Your task to perform on an android device: View the shopping cart on walmart.com. Add asus zenbook to the cart on walmart.com, then select checkout. Image 0: 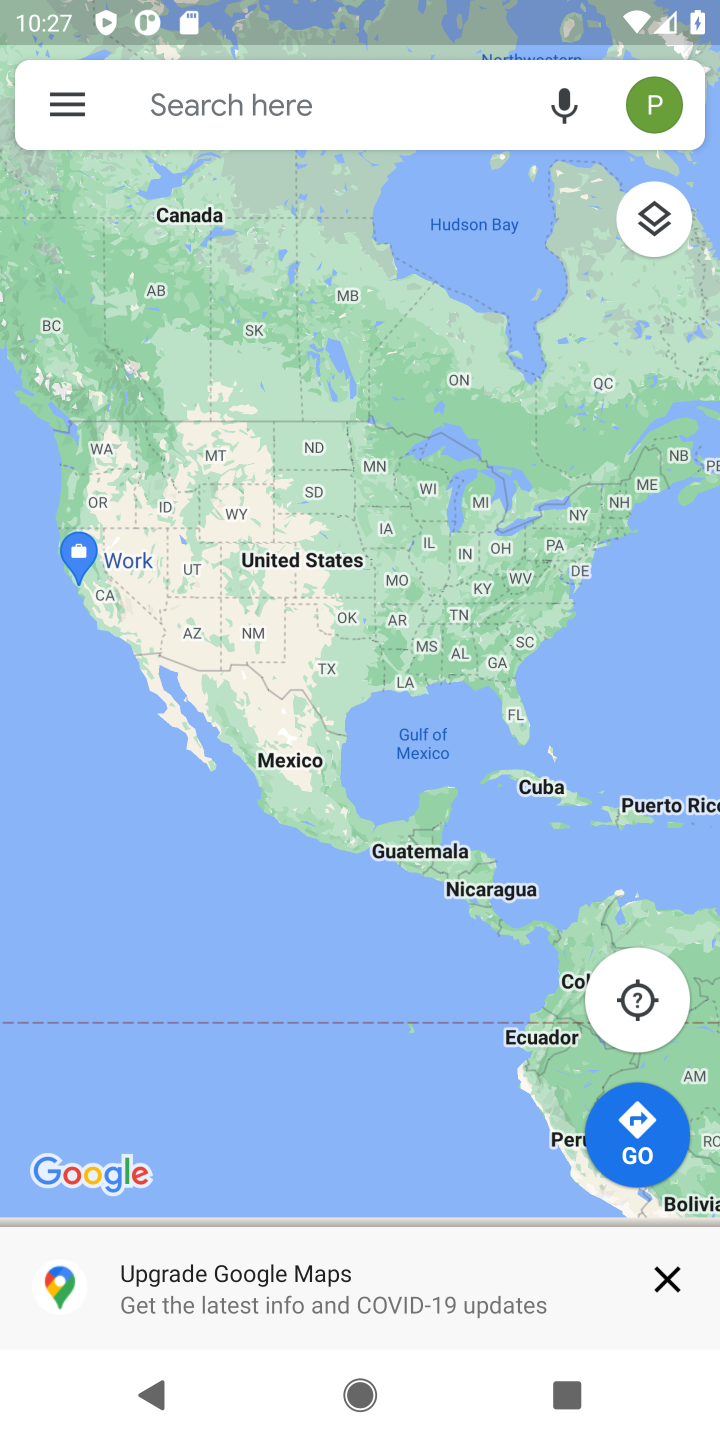
Step 0: press home button
Your task to perform on an android device: View the shopping cart on walmart.com. Add asus zenbook to the cart on walmart.com, then select checkout. Image 1: 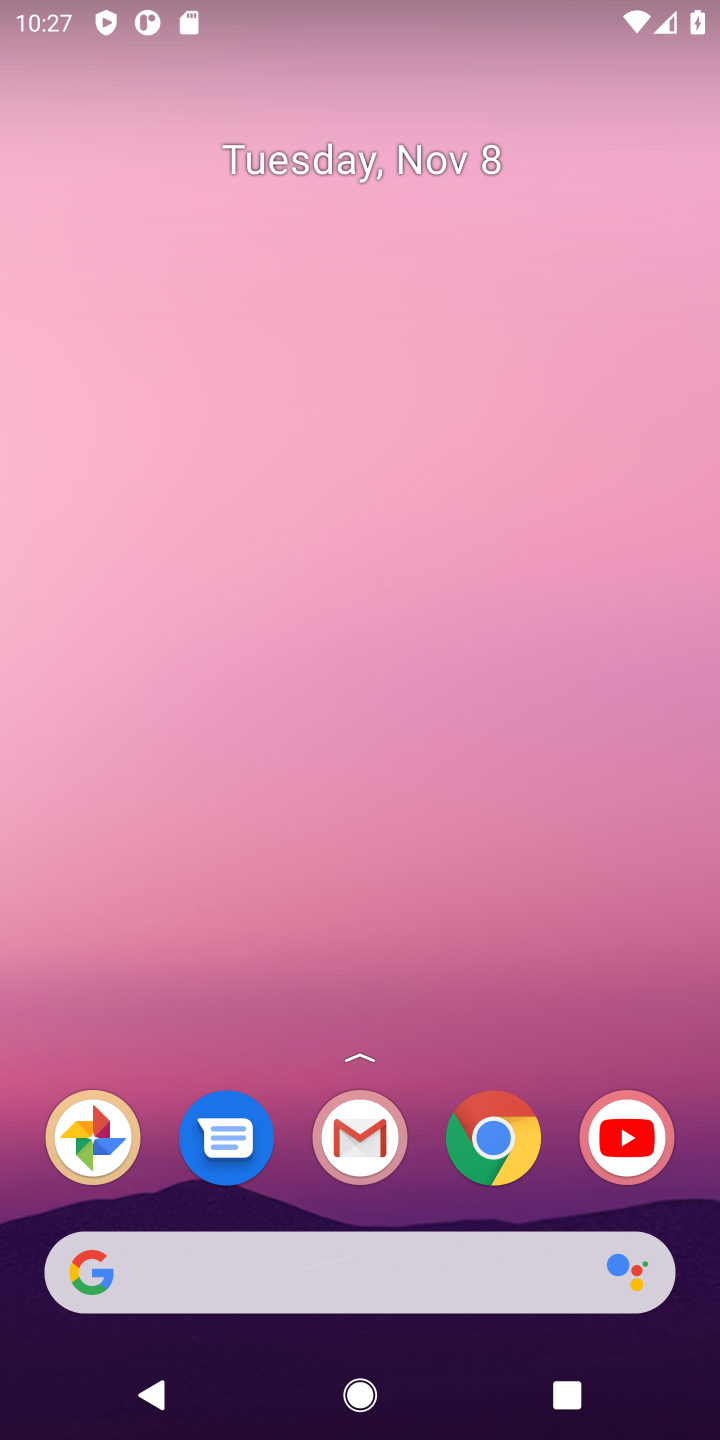
Step 1: click (473, 1122)
Your task to perform on an android device: View the shopping cart on walmart.com. Add asus zenbook to the cart on walmart.com, then select checkout. Image 2: 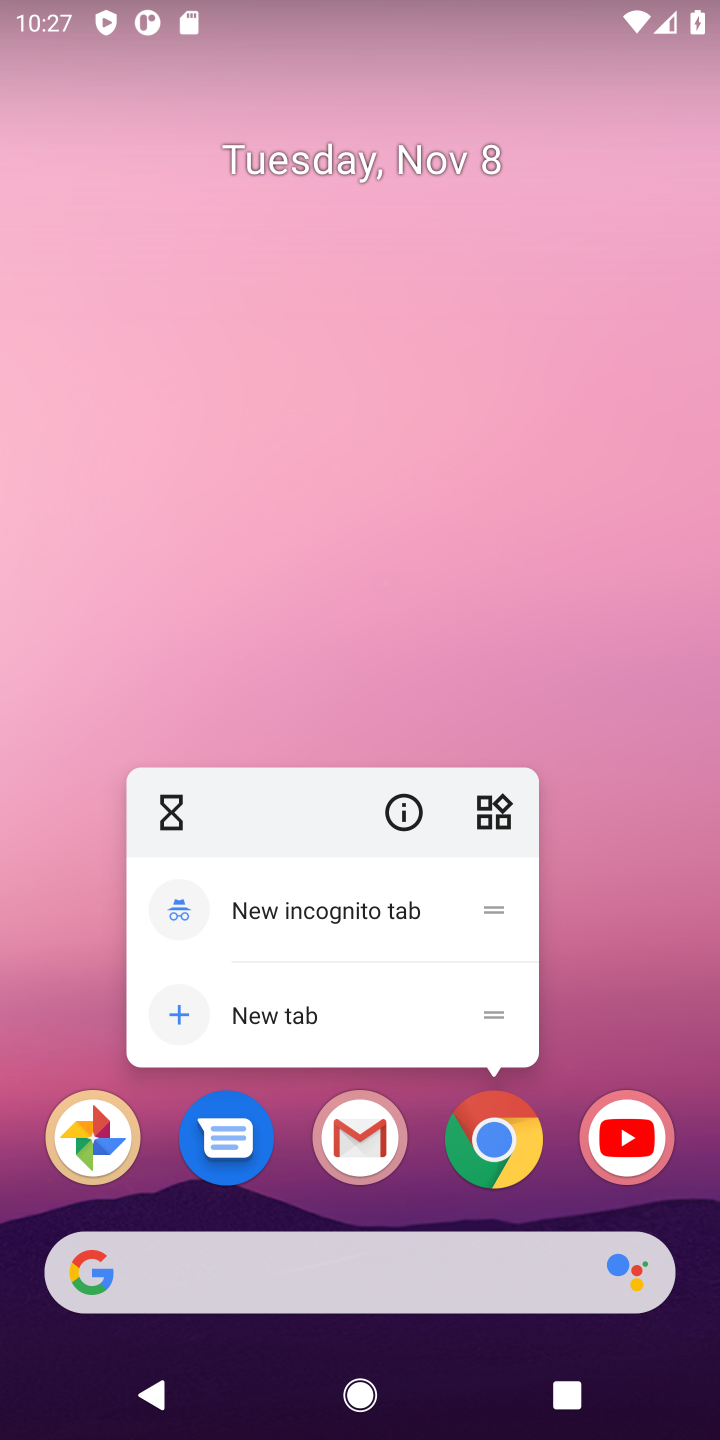
Step 2: click (474, 1142)
Your task to perform on an android device: View the shopping cart on walmart.com. Add asus zenbook to the cart on walmart.com, then select checkout. Image 3: 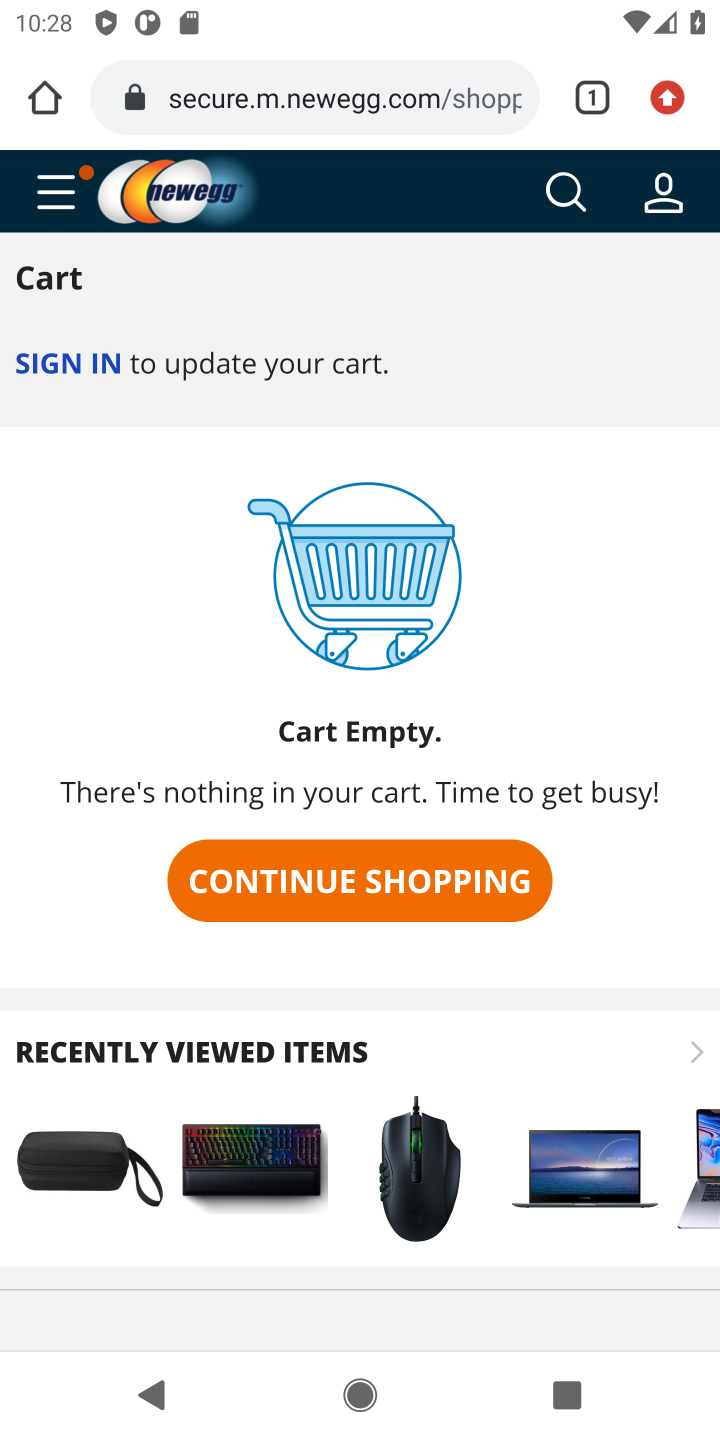
Step 3: click (351, 95)
Your task to perform on an android device: View the shopping cart on walmart.com. Add asus zenbook to the cart on walmart.com, then select checkout. Image 4: 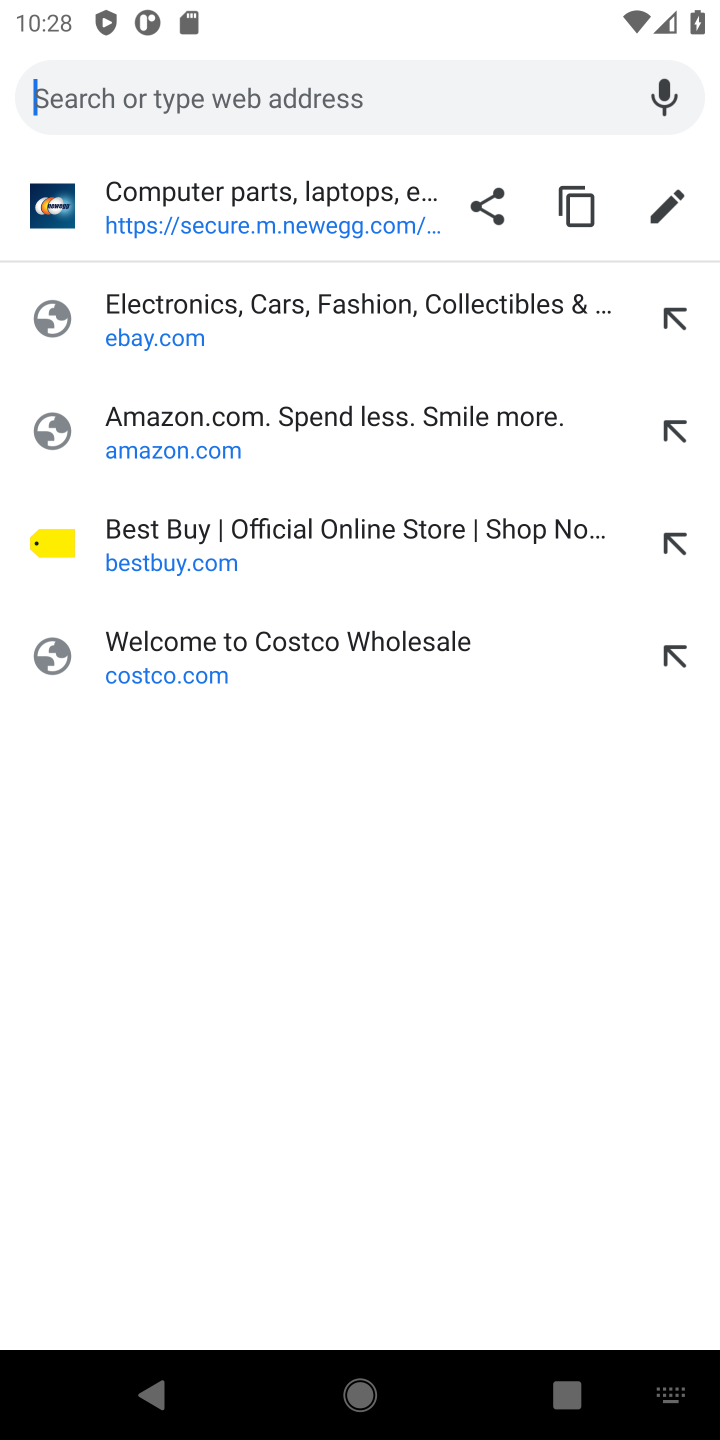
Step 4: type " walmart.com"
Your task to perform on an android device: View the shopping cart on walmart.com. Add asus zenbook to the cart on walmart.com, then select checkout. Image 5: 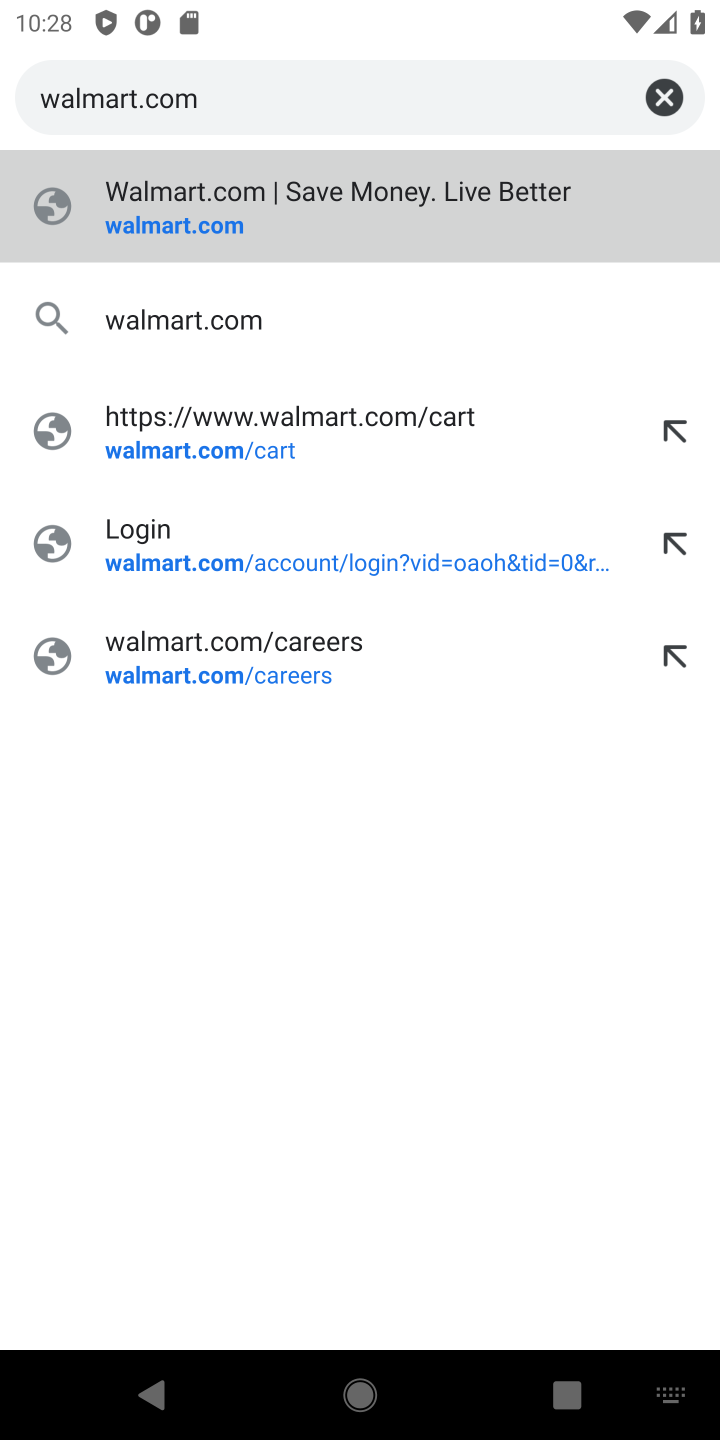
Step 5: press enter
Your task to perform on an android device: View the shopping cart on walmart.com. Add asus zenbook to the cart on walmart.com, then select checkout. Image 6: 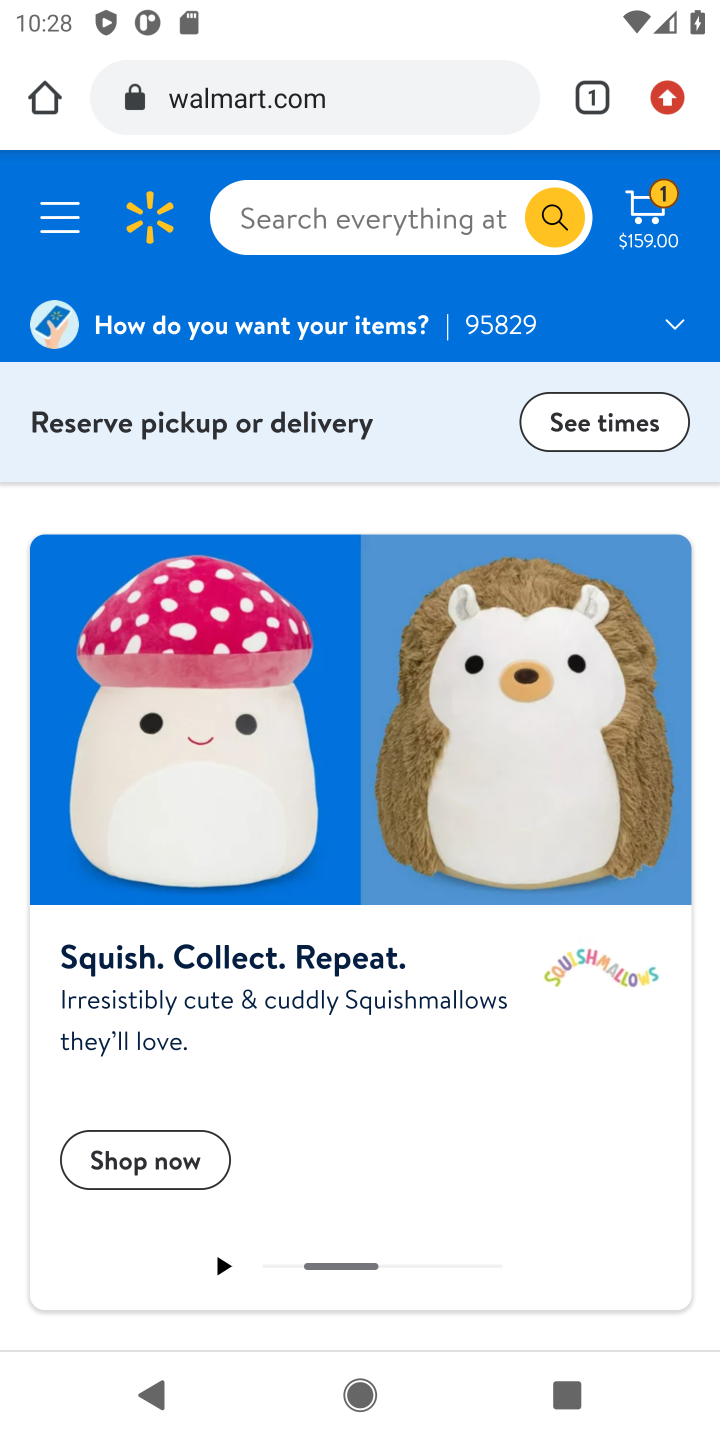
Step 6: click (438, 212)
Your task to perform on an android device: View the shopping cart on walmart.com. Add asus zenbook to the cart on walmart.com, then select checkout. Image 7: 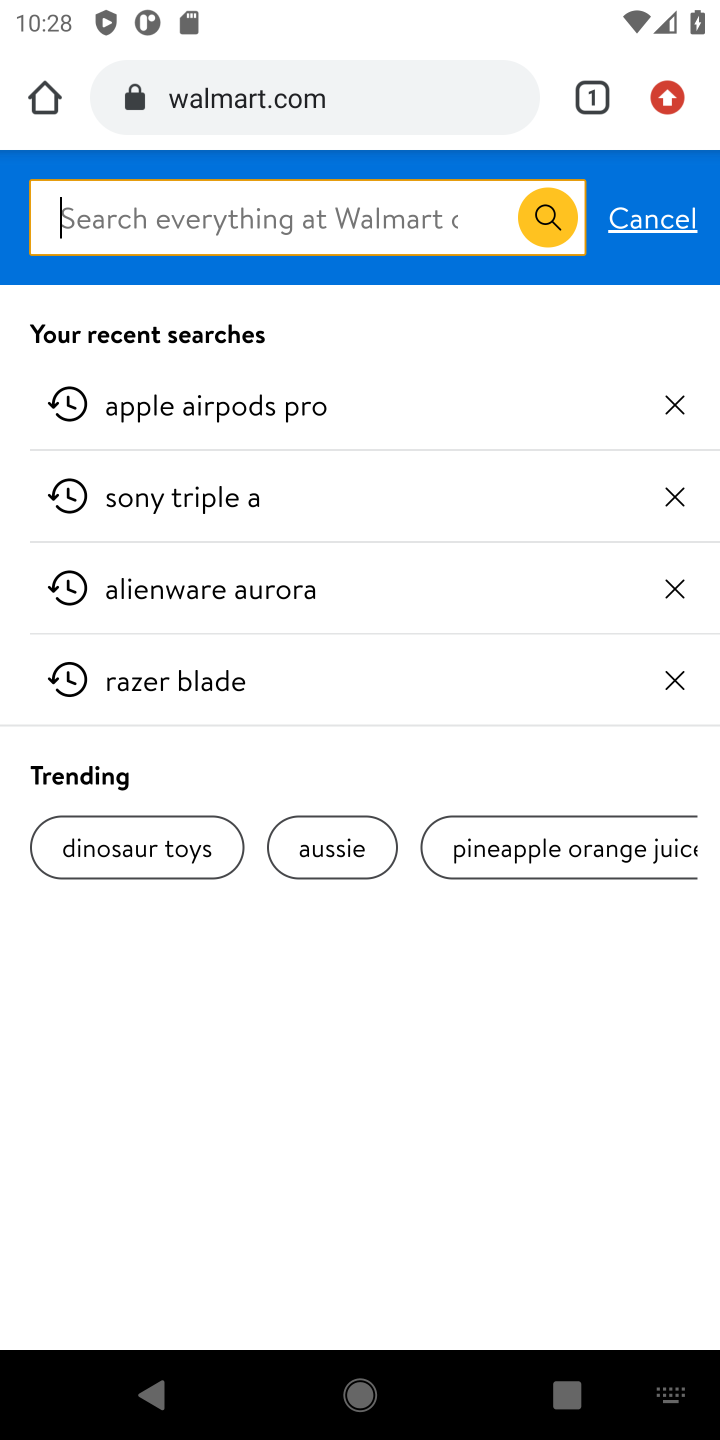
Step 7: type "asus zenbook "
Your task to perform on an android device: View the shopping cart on walmart.com. Add asus zenbook to the cart on walmart.com, then select checkout. Image 8: 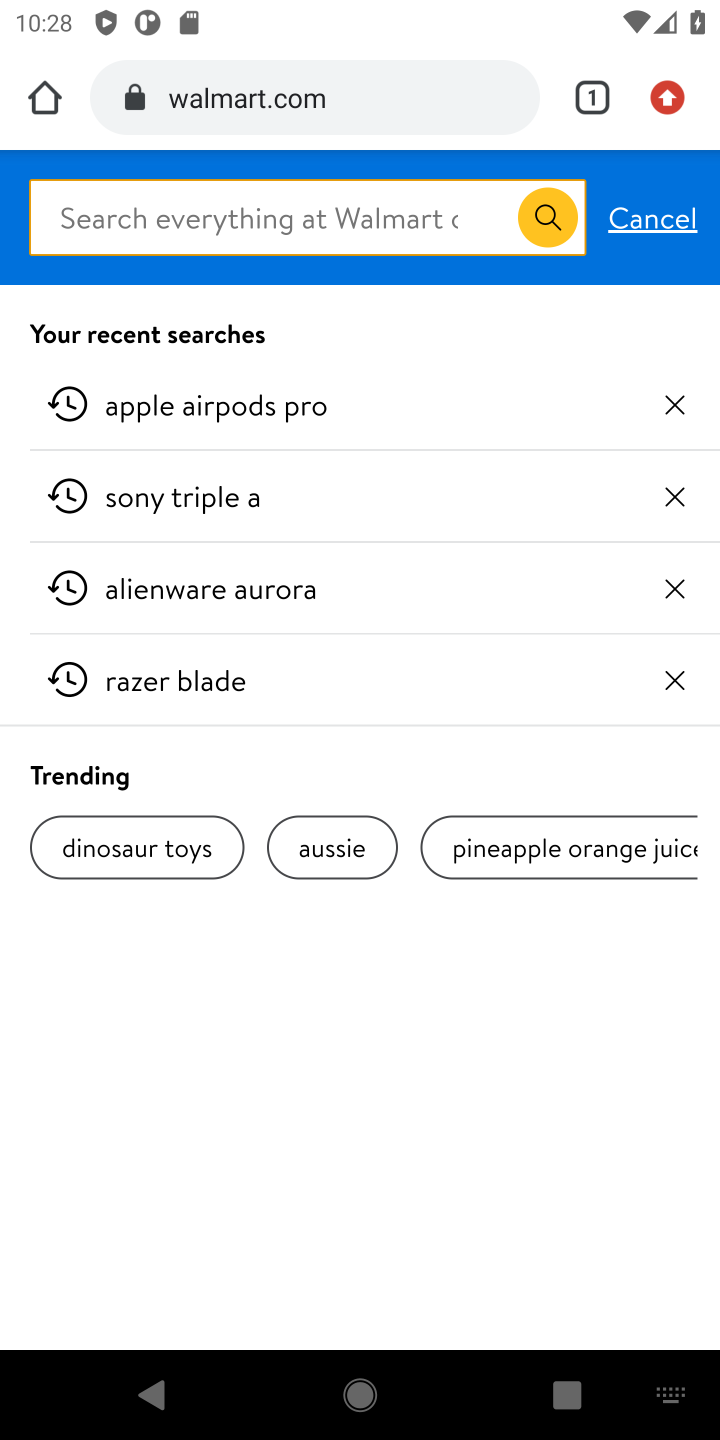
Step 8: press enter
Your task to perform on an android device: View the shopping cart on walmart.com. Add asus zenbook to the cart on walmart.com, then select checkout. Image 9: 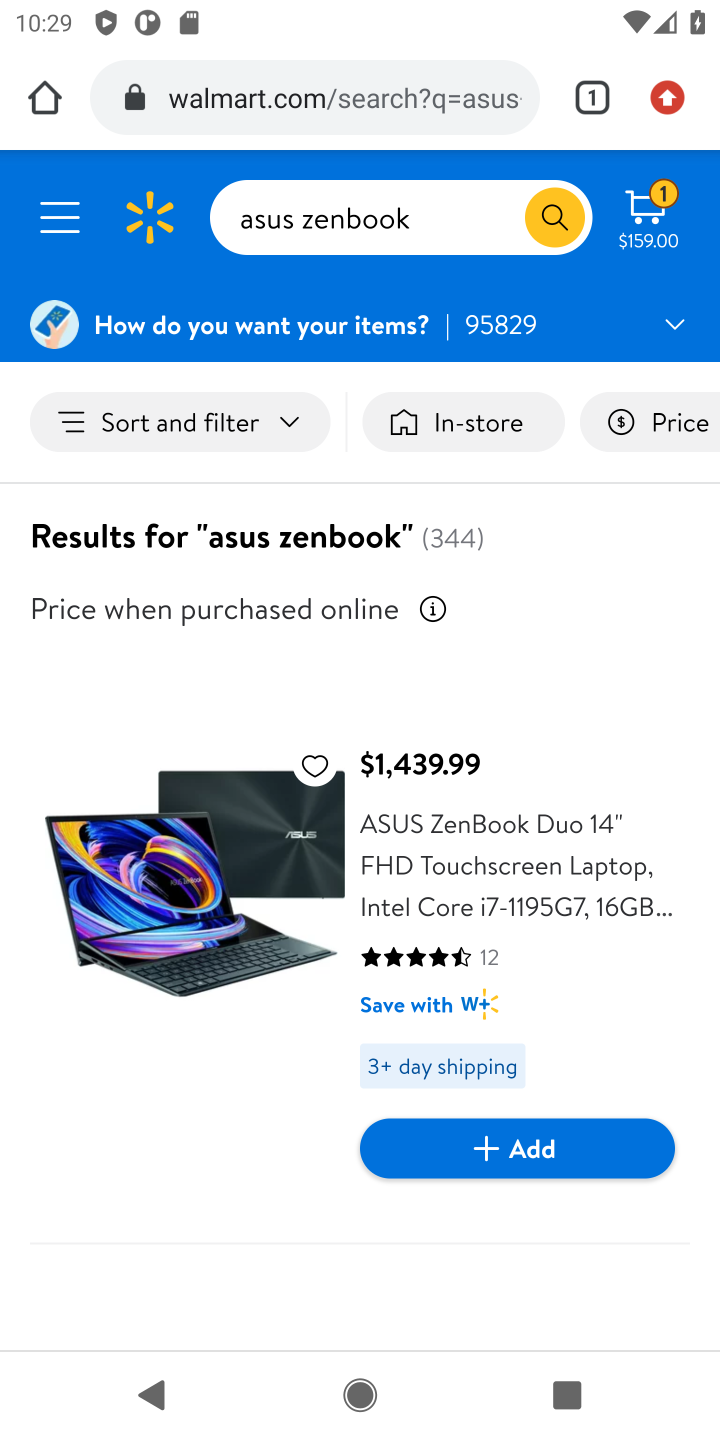
Step 9: click (526, 1147)
Your task to perform on an android device: View the shopping cart on walmart.com. Add asus zenbook to the cart on walmart.com, then select checkout. Image 10: 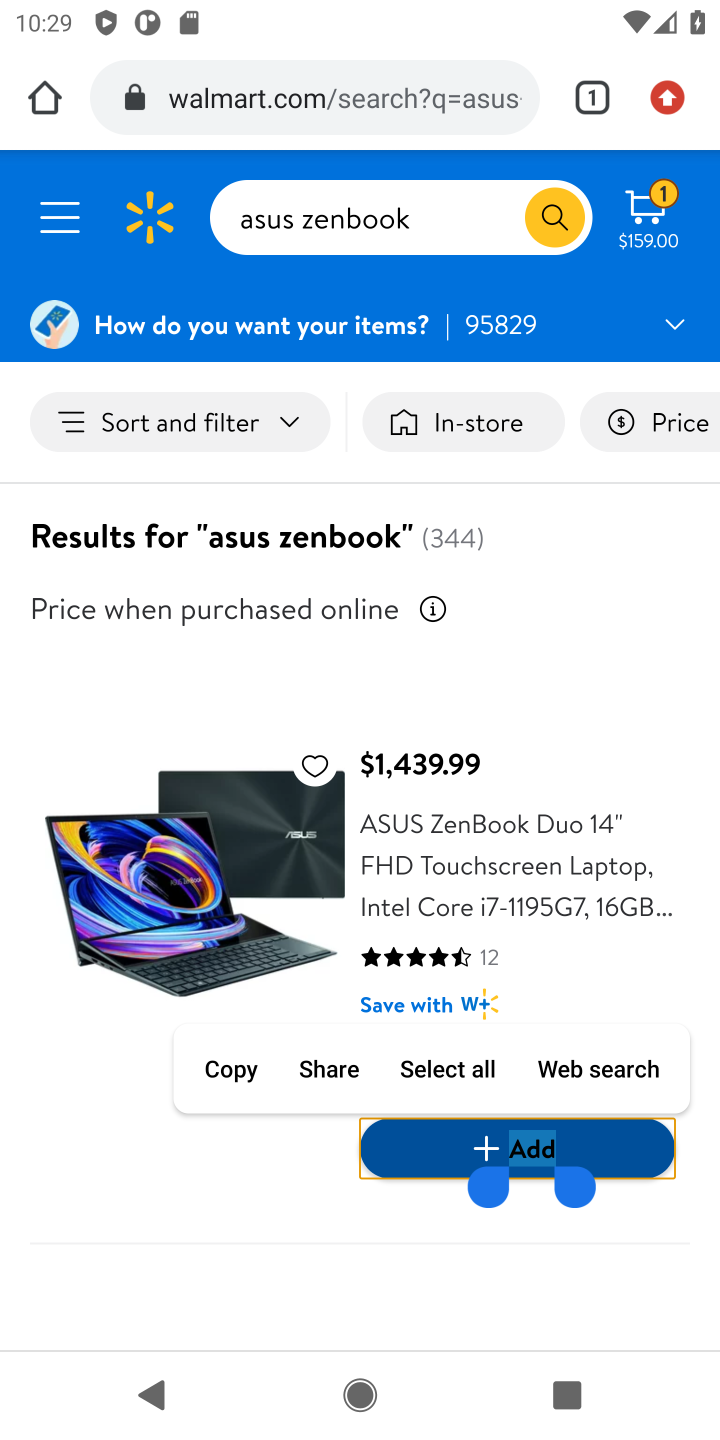
Step 10: click (545, 1149)
Your task to perform on an android device: View the shopping cart on walmart.com. Add asus zenbook to the cart on walmart.com, then select checkout. Image 11: 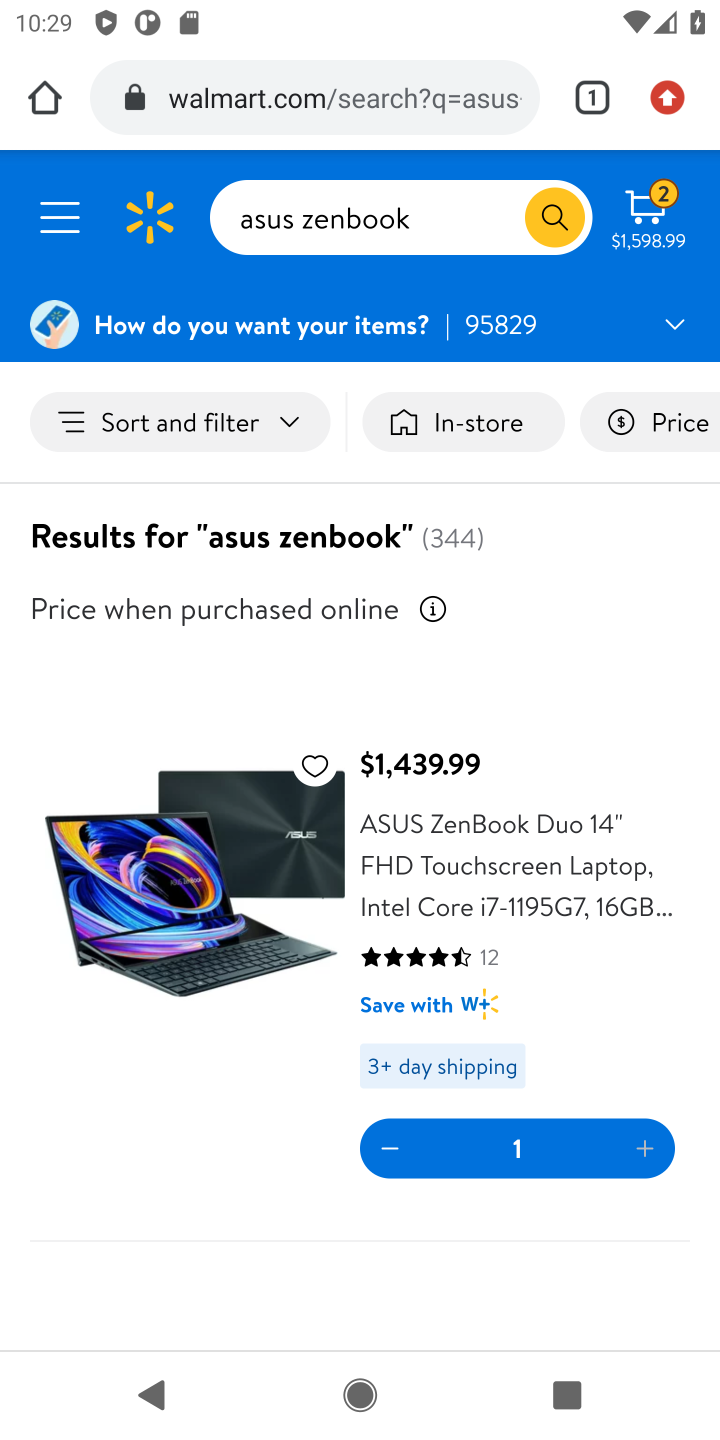
Step 11: click (647, 203)
Your task to perform on an android device: View the shopping cart on walmart.com. Add asus zenbook to the cart on walmart.com, then select checkout. Image 12: 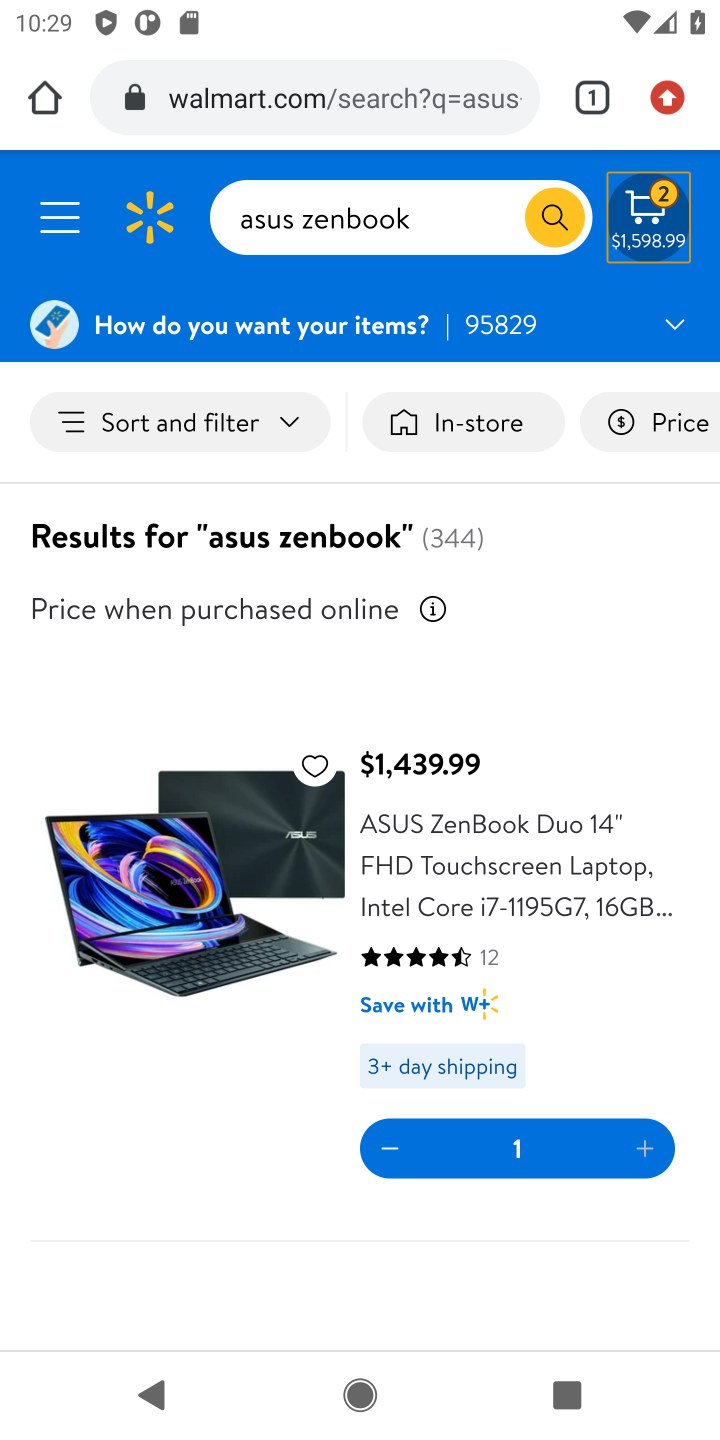
Step 12: click (653, 197)
Your task to perform on an android device: View the shopping cart on walmart.com. Add asus zenbook to the cart on walmart.com, then select checkout. Image 13: 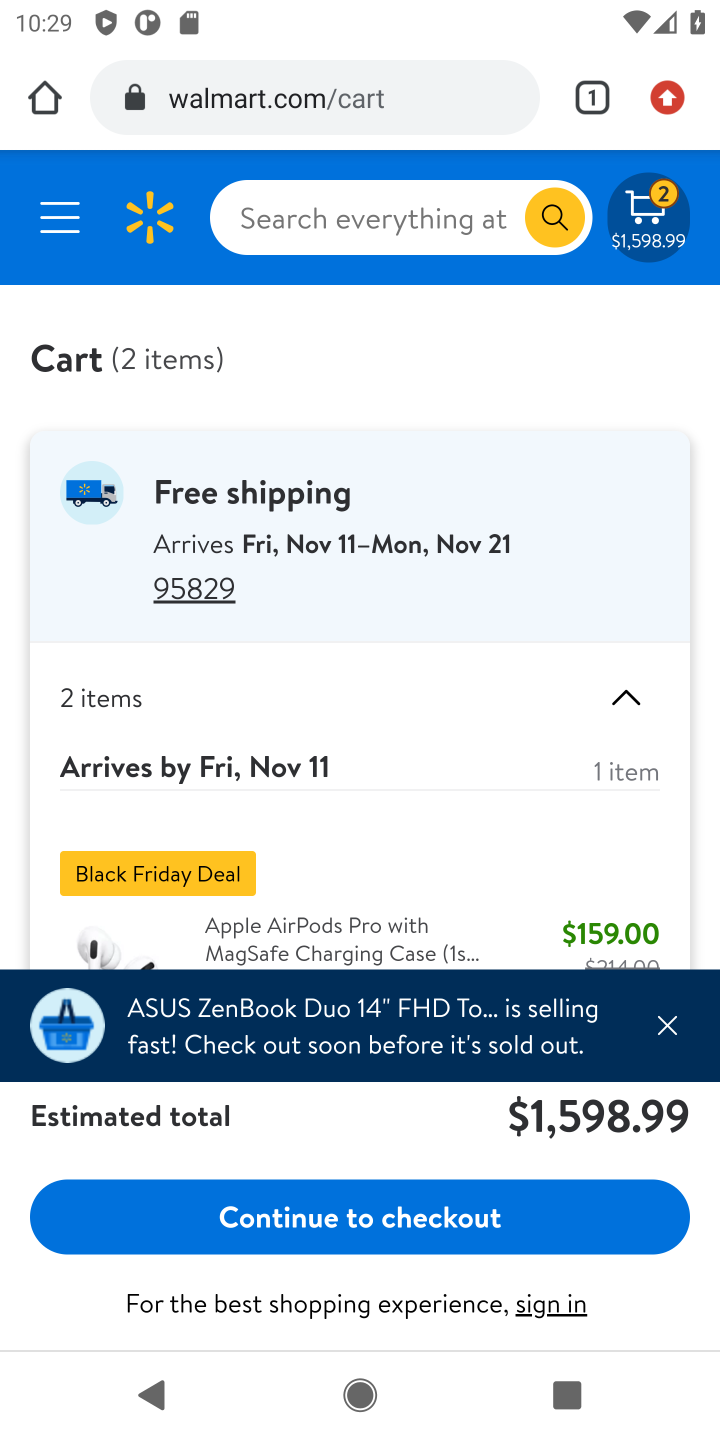
Step 13: click (664, 1032)
Your task to perform on an android device: View the shopping cart on walmart.com. Add asus zenbook to the cart on walmart.com, then select checkout. Image 14: 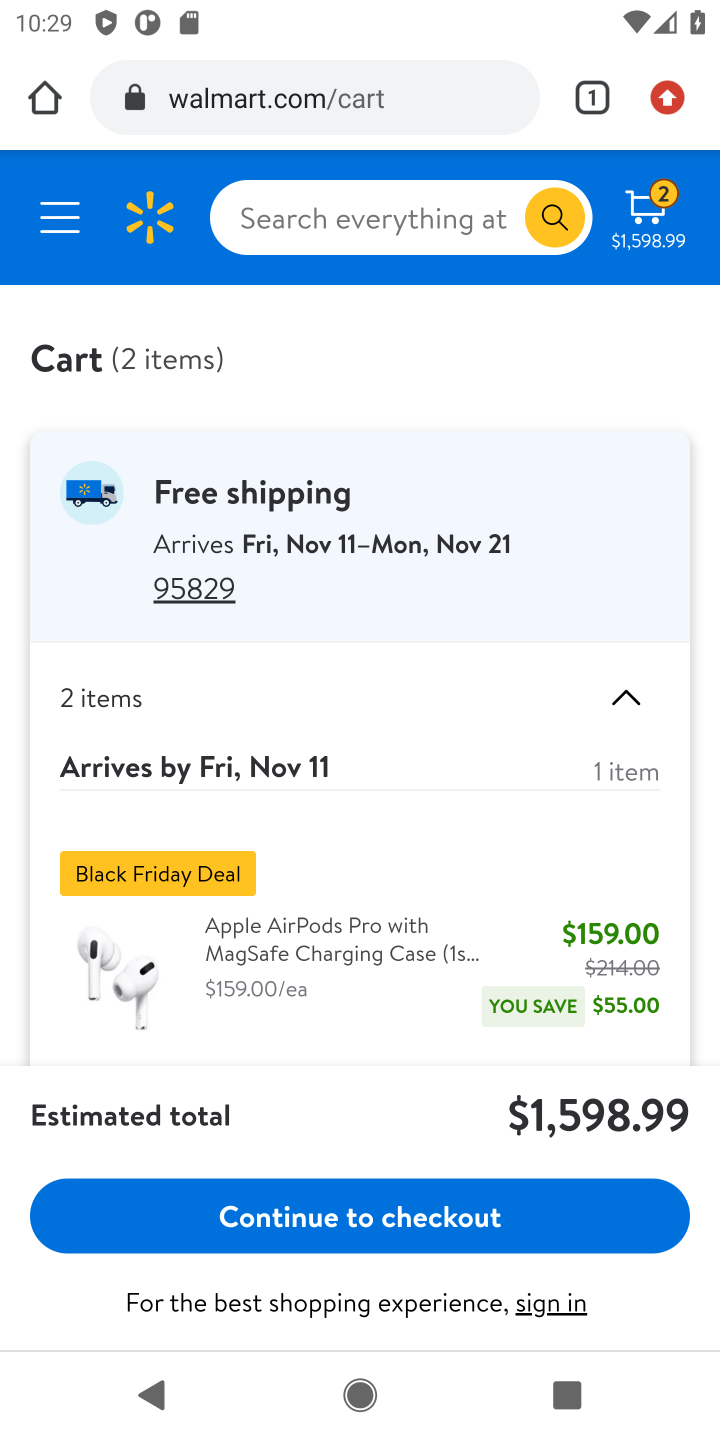
Step 14: drag from (365, 992) to (516, 418)
Your task to perform on an android device: View the shopping cart on walmart.com. Add asus zenbook to the cart on walmart.com, then select checkout. Image 15: 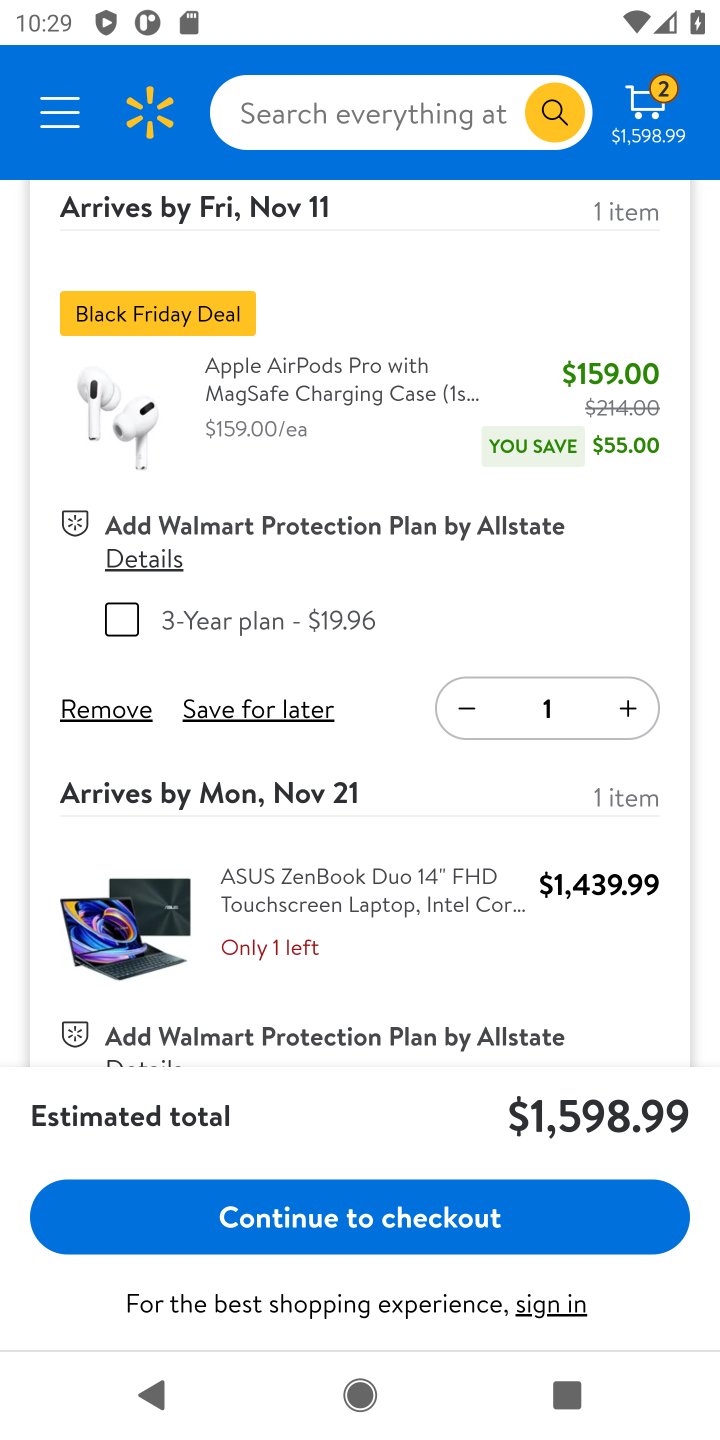
Step 15: click (118, 706)
Your task to perform on an android device: View the shopping cart on walmart.com. Add asus zenbook to the cart on walmart.com, then select checkout. Image 16: 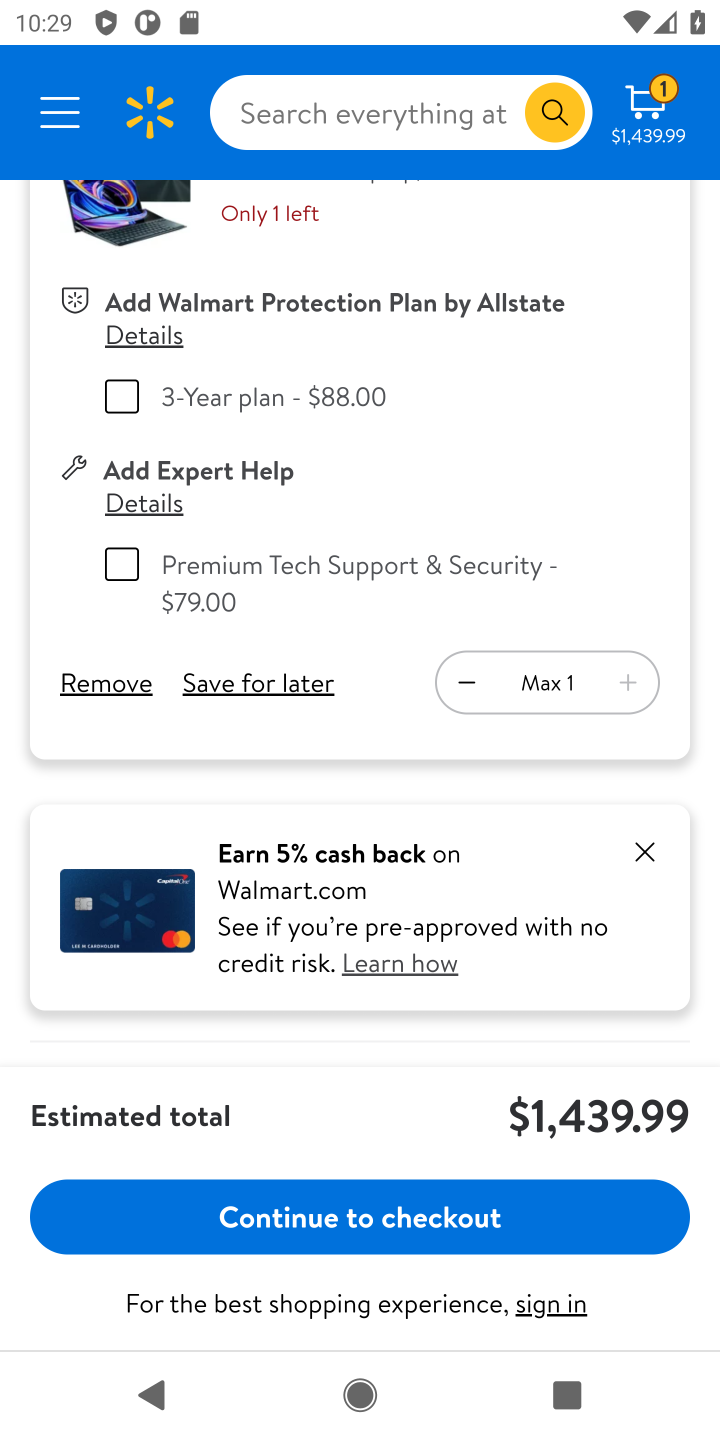
Step 16: drag from (567, 266) to (349, 1001)
Your task to perform on an android device: View the shopping cart on walmart.com. Add asus zenbook to the cart on walmart.com, then select checkout. Image 17: 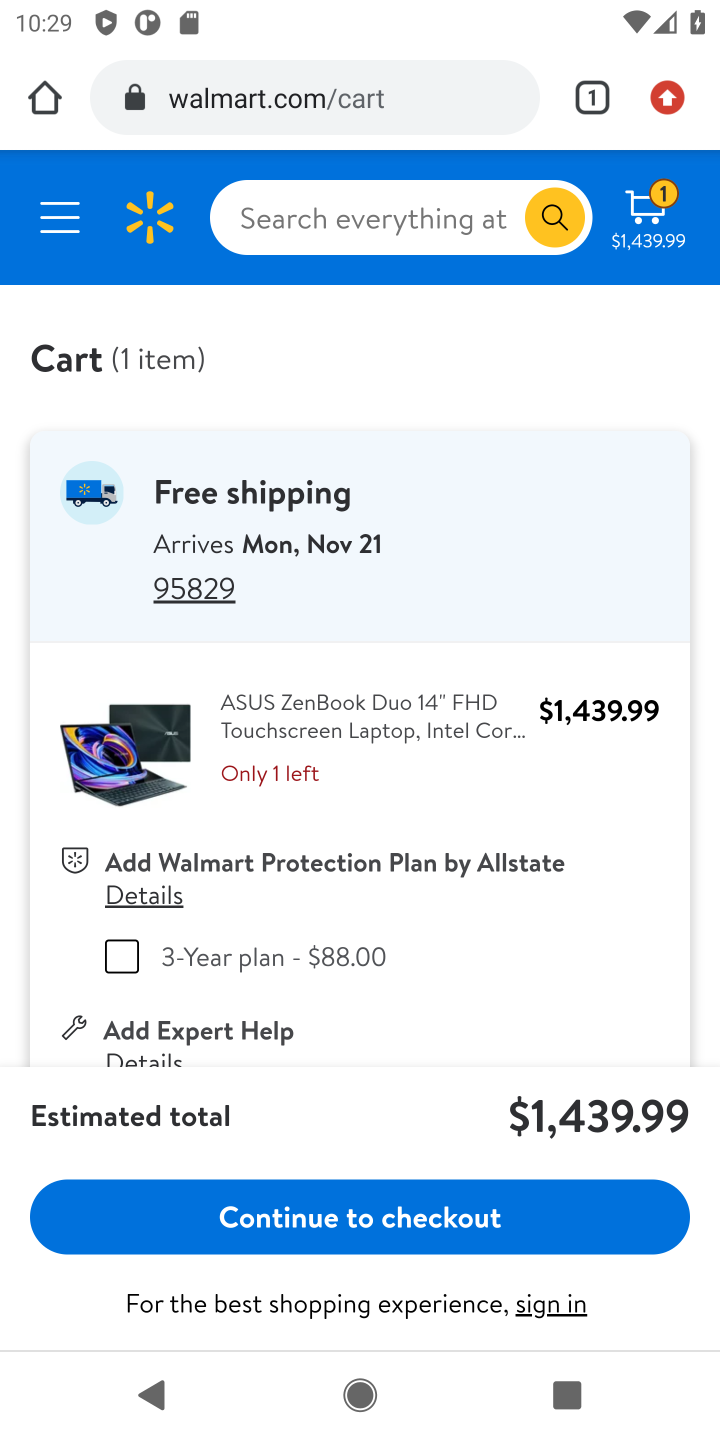
Step 17: click (368, 1208)
Your task to perform on an android device: View the shopping cart on walmart.com. Add asus zenbook to the cart on walmart.com, then select checkout. Image 18: 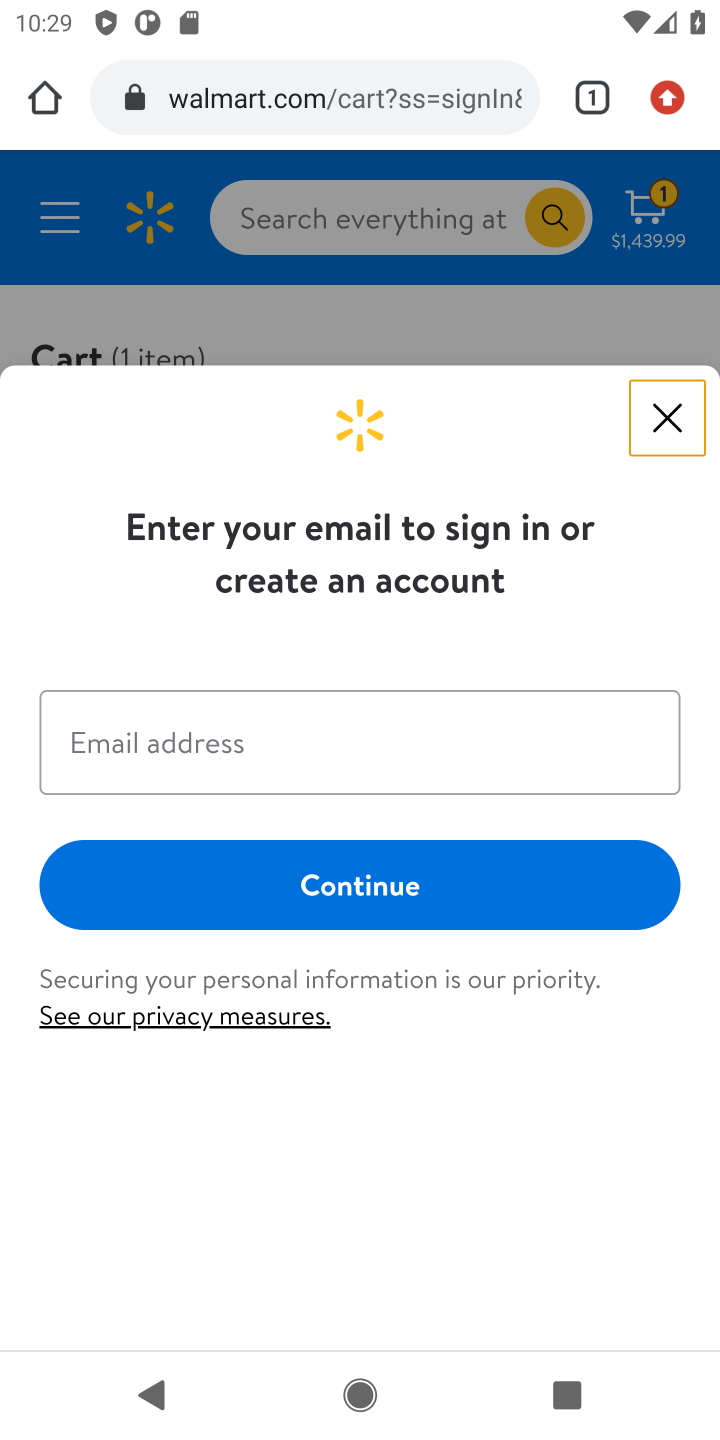
Step 18: task complete